Your task to perform on an android device: see sites visited before in the chrome app Image 0: 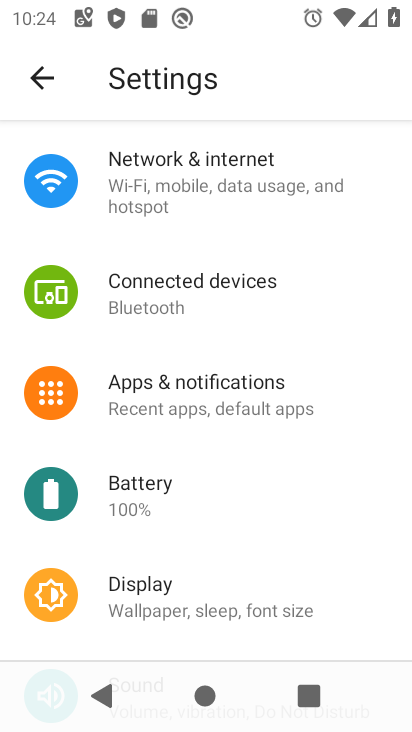
Step 0: press home button
Your task to perform on an android device: see sites visited before in the chrome app Image 1: 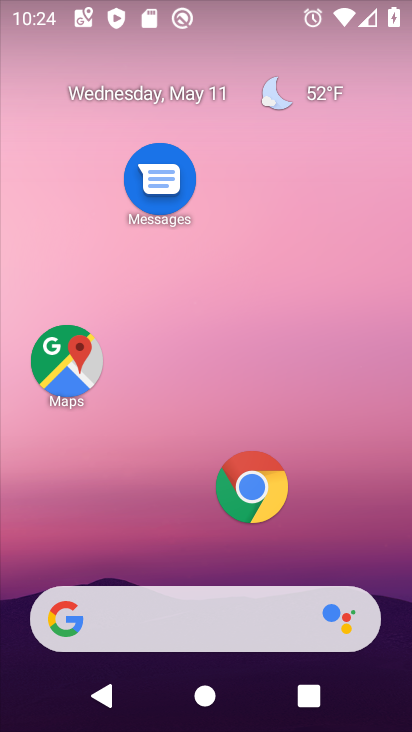
Step 1: click (264, 495)
Your task to perform on an android device: see sites visited before in the chrome app Image 2: 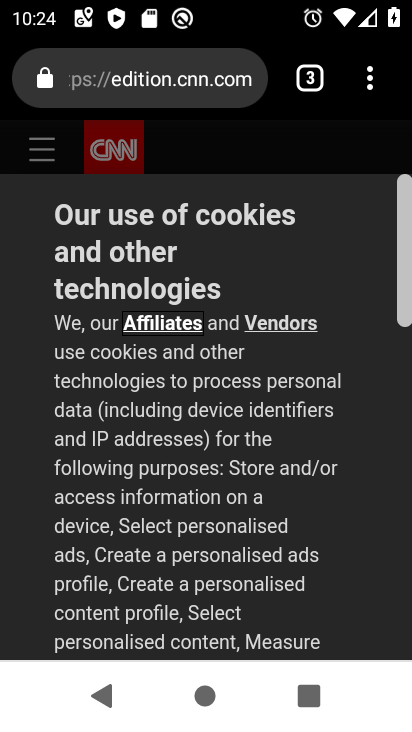
Step 2: drag from (368, 78) to (126, 567)
Your task to perform on an android device: see sites visited before in the chrome app Image 3: 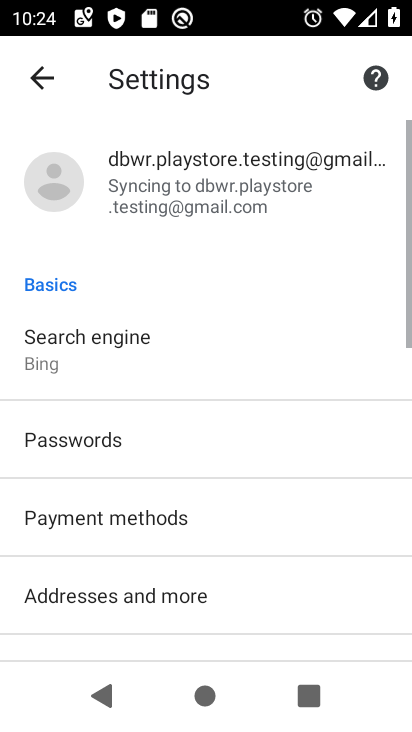
Step 3: drag from (126, 567) to (134, 421)
Your task to perform on an android device: see sites visited before in the chrome app Image 4: 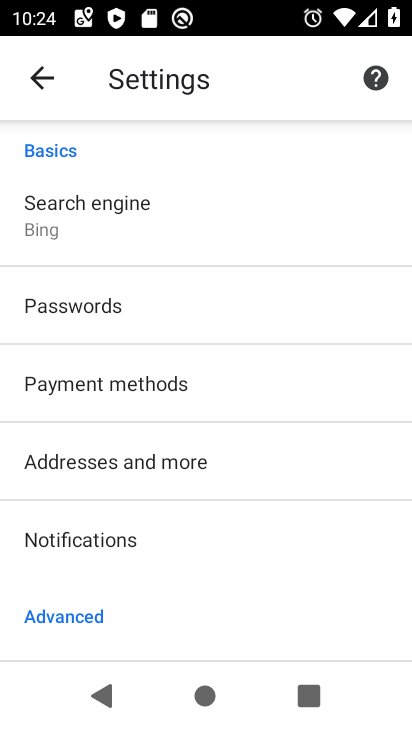
Step 4: click (31, 67)
Your task to perform on an android device: see sites visited before in the chrome app Image 5: 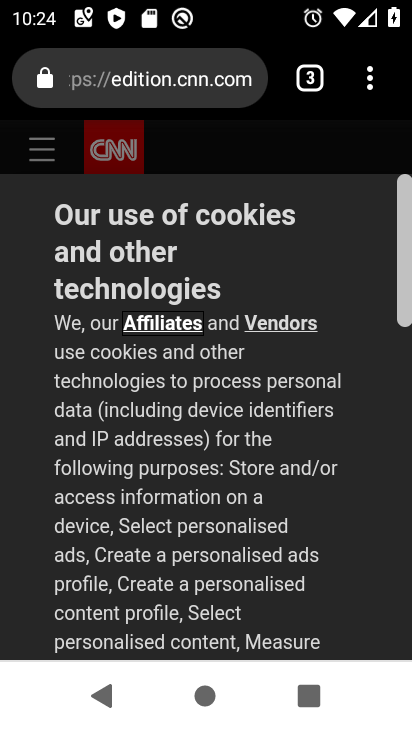
Step 5: task complete